Your task to perform on an android device: open app "DoorDash - Dasher" Image 0: 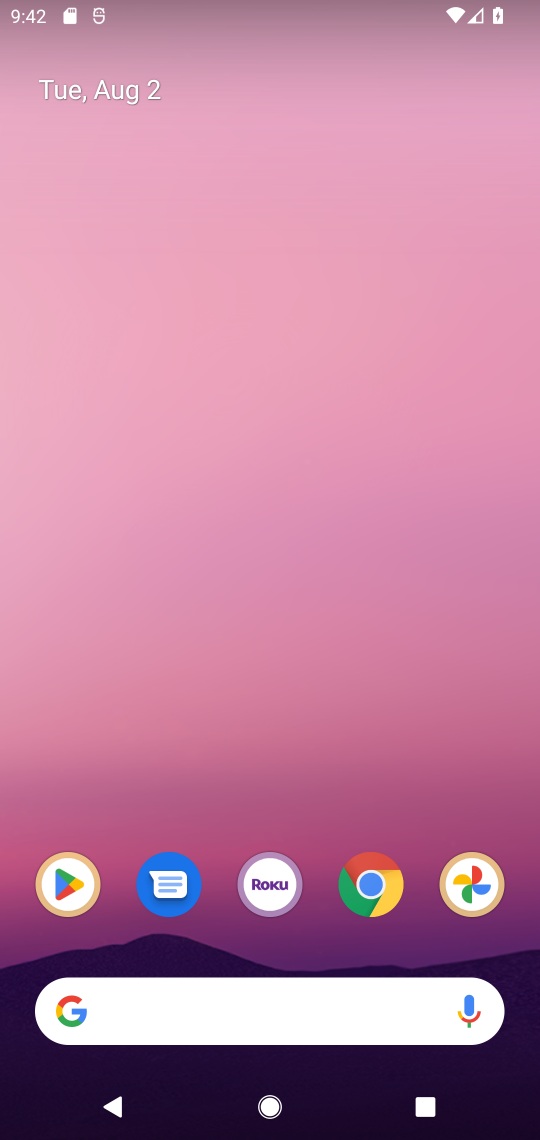
Step 0: click (74, 882)
Your task to perform on an android device: open app "DoorDash - Dasher" Image 1: 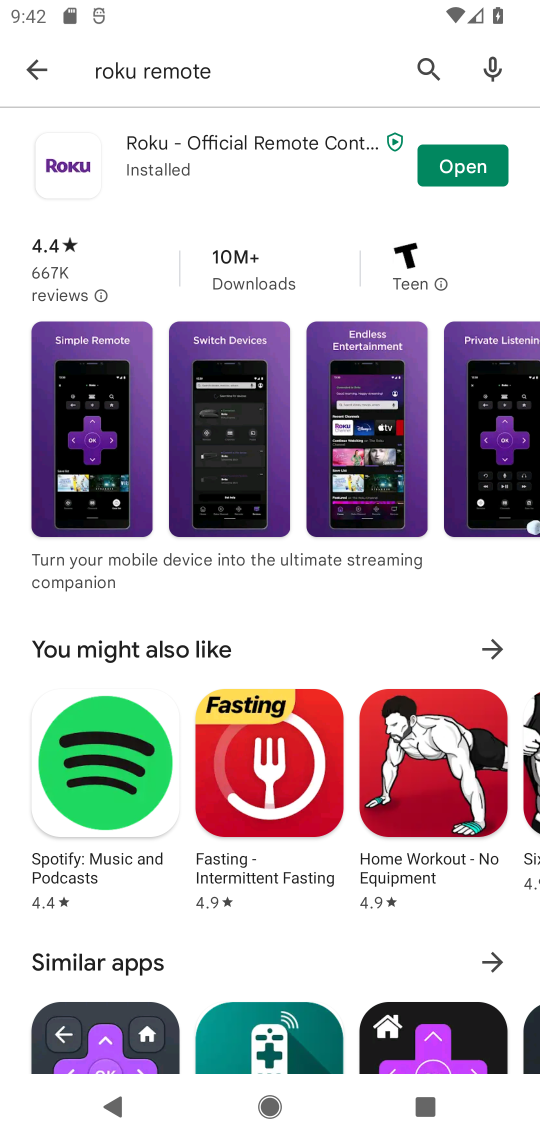
Step 1: click (174, 64)
Your task to perform on an android device: open app "DoorDash - Dasher" Image 2: 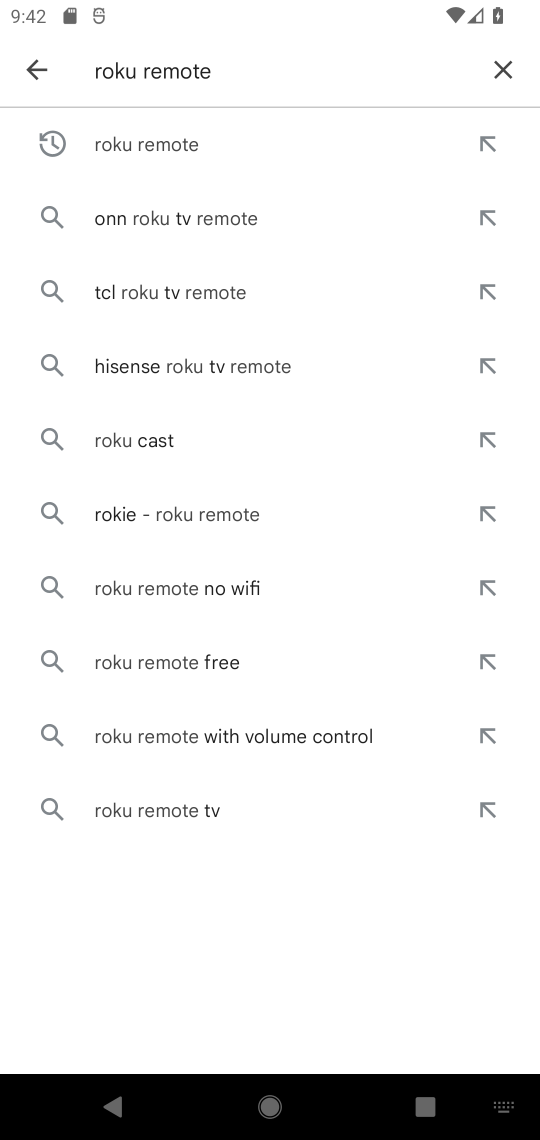
Step 2: click (497, 71)
Your task to perform on an android device: open app "DoorDash - Dasher" Image 3: 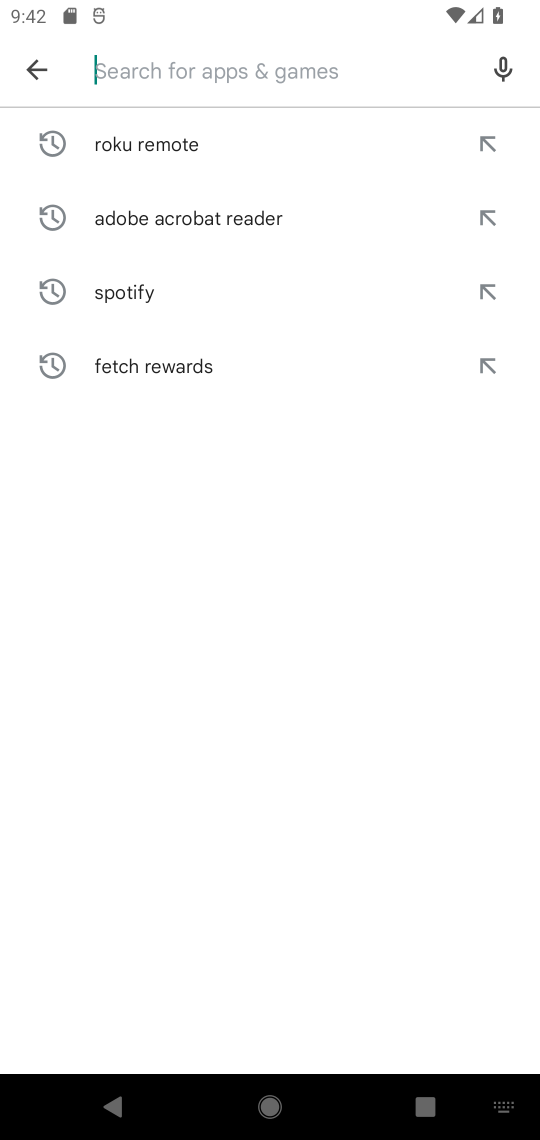
Step 3: type "DoorDash- Dasher"
Your task to perform on an android device: open app "DoorDash - Dasher" Image 4: 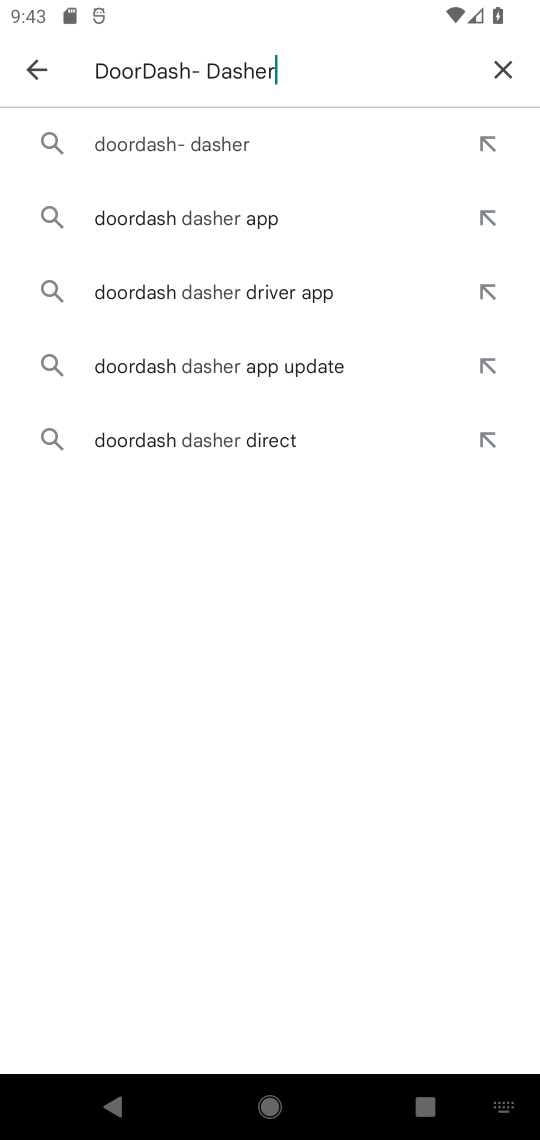
Step 4: click (202, 154)
Your task to perform on an android device: open app "DoorDash - Dasher" Image 5: 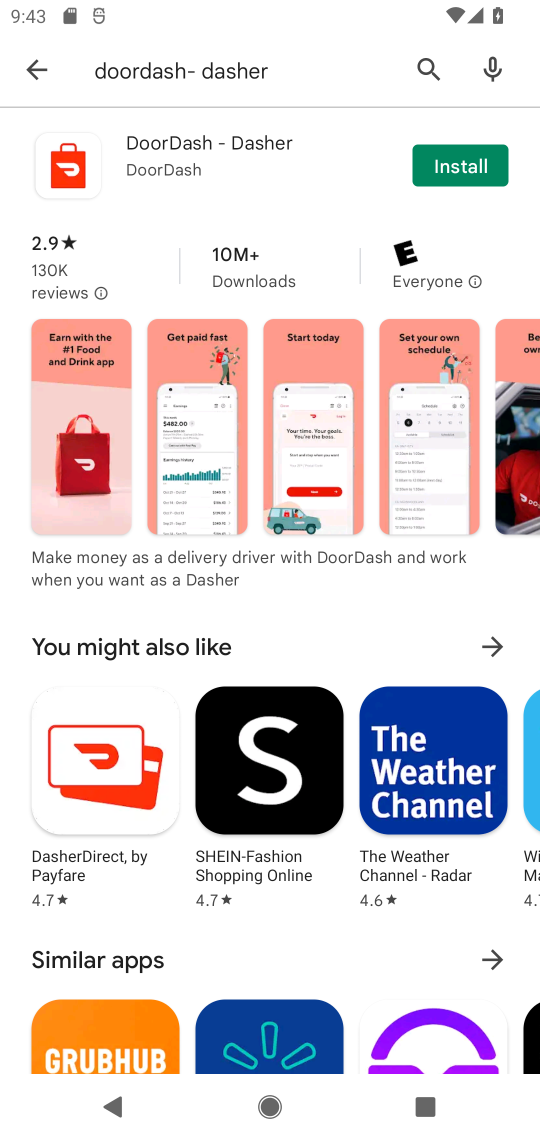
Step 5: task complete